Your task to perform on an android device: What is the recent news? Image 0: 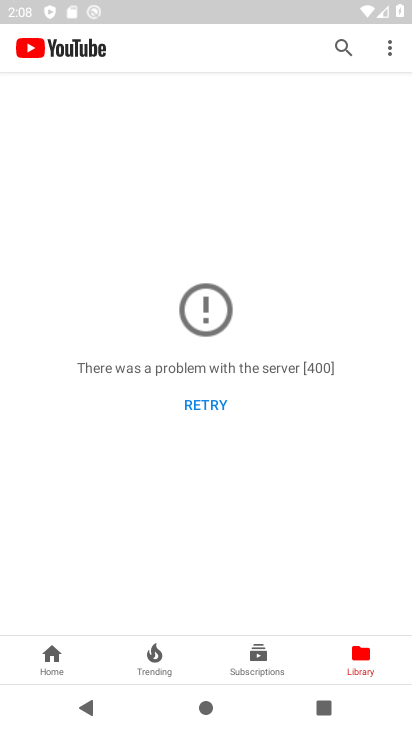
Step 0: press home button
Your task to perform on an android device: What is the recent news? Image 1: 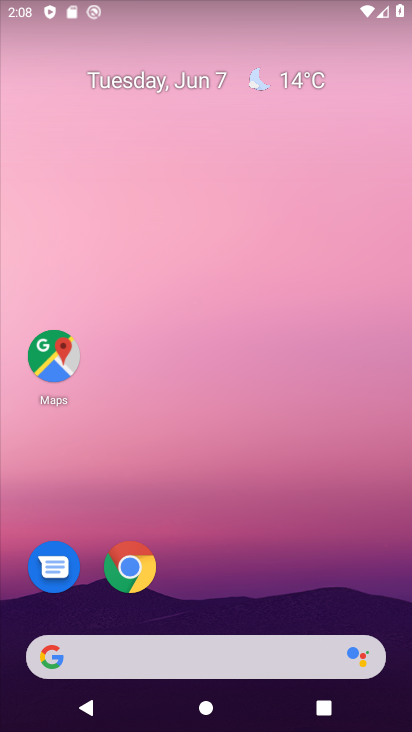
Step 1: drag from (213, 576) to (213, 221)
Your task to perform on an android device: What is the recent news? Image 2: 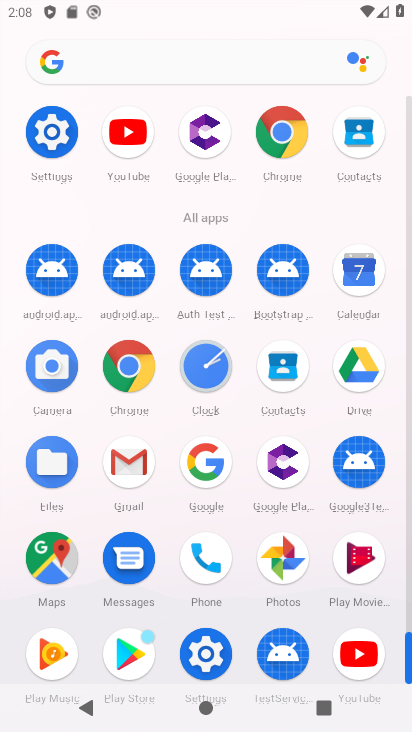
Step 2: drag from (156, 461) to (172, 343)
Your task to perform on an android device: What is the recent news? Image 3: 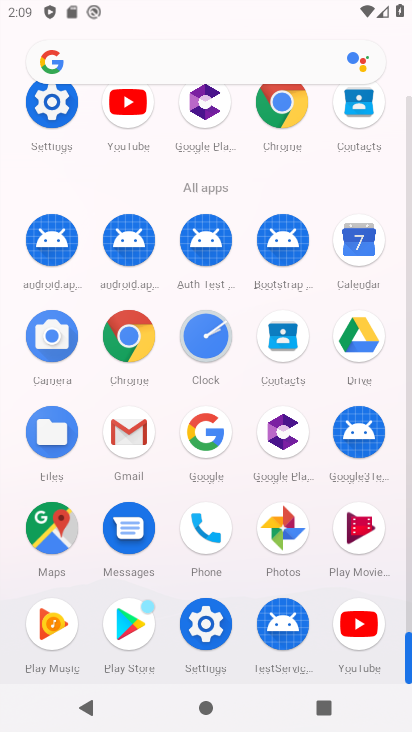
Step 3: click (221, 454)
Your task to perform on an android device: What is the recent news? Image 4: 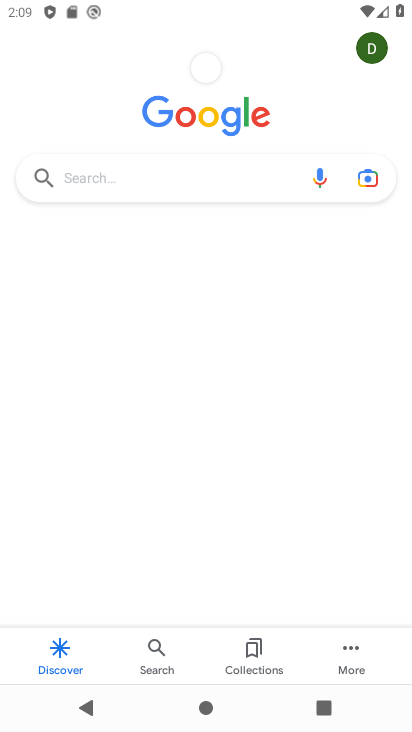
Step 4: click (192, 177)
Your task to perform on an android device: What is the recent news? Image 5: 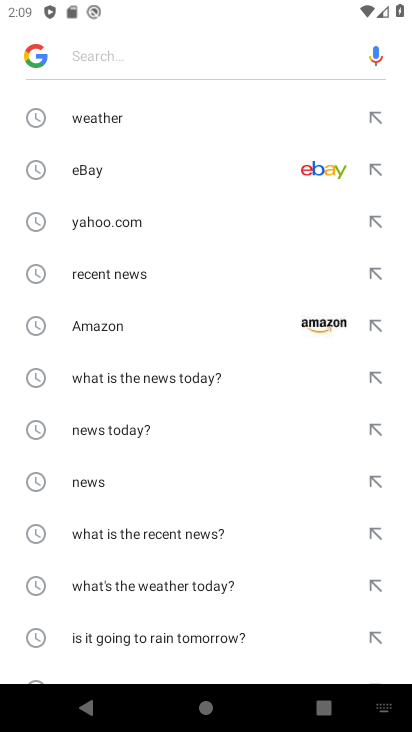
Step 5: type "news"
Your task to perform on an android device: What is the recent news? Image 6: 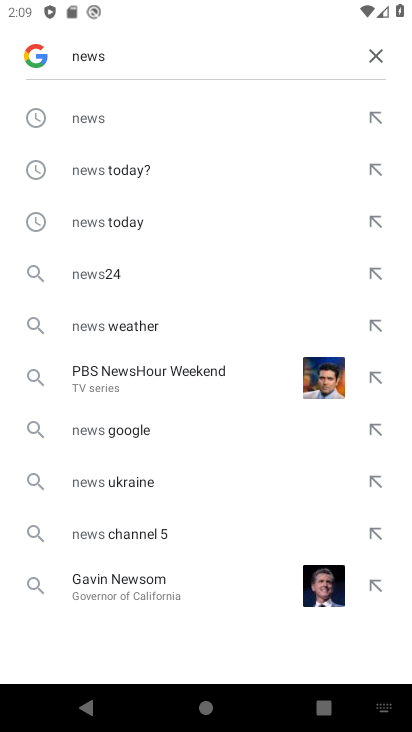
Step 6: click (136, 123)
Your task to perform on an android device: What is the recent news? Image 7: 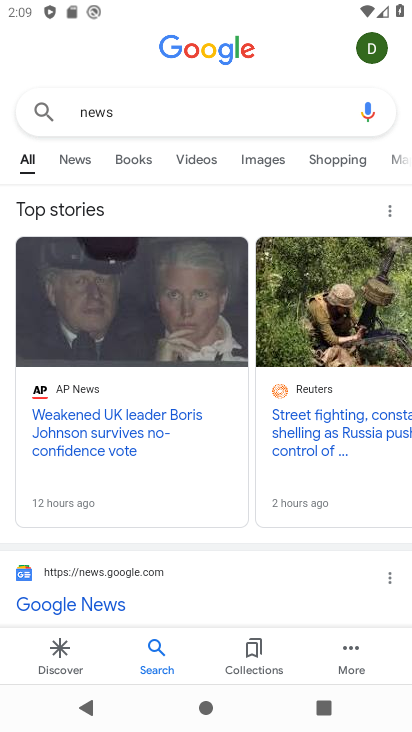
Step 7: click (83, 154)
Your task to perform on an android device: What is the recent news? Image 8: 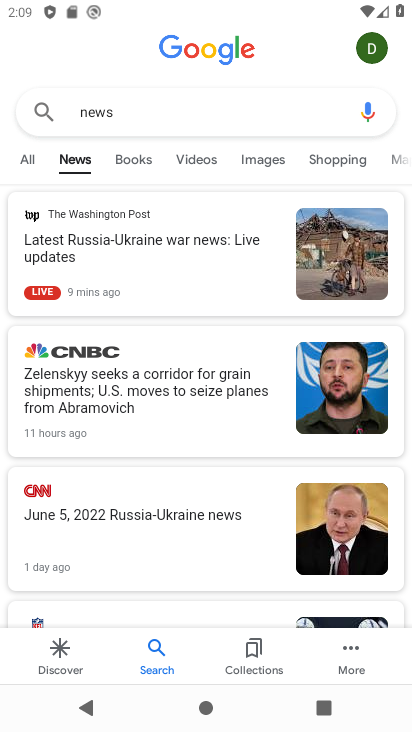
Step 8: task complete